Your task to perform on an android device: Go to CNN.com Image 0: 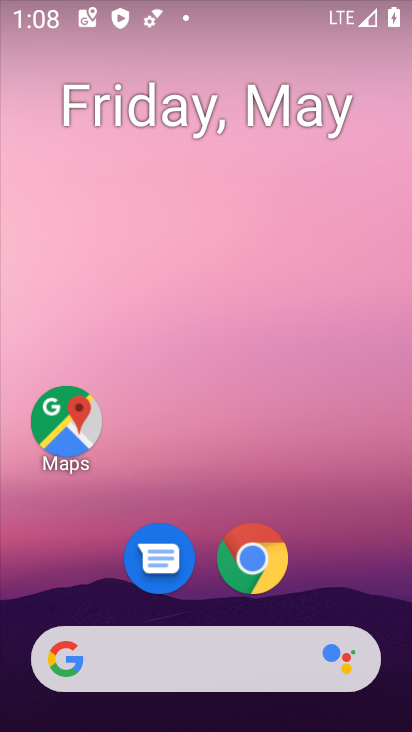
Step 0: click (267, 558)
Your task to perform on an android device: Go to CNN.com Image 1: 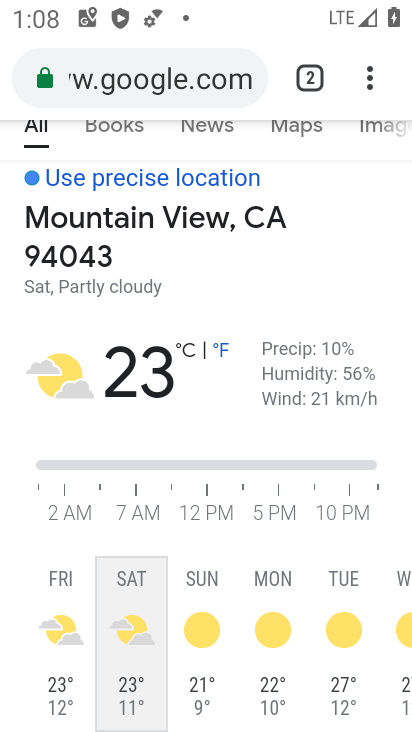
Step 1: click (184, 91)
Your task to perform on an android device: Go to CNN.com Image 2: 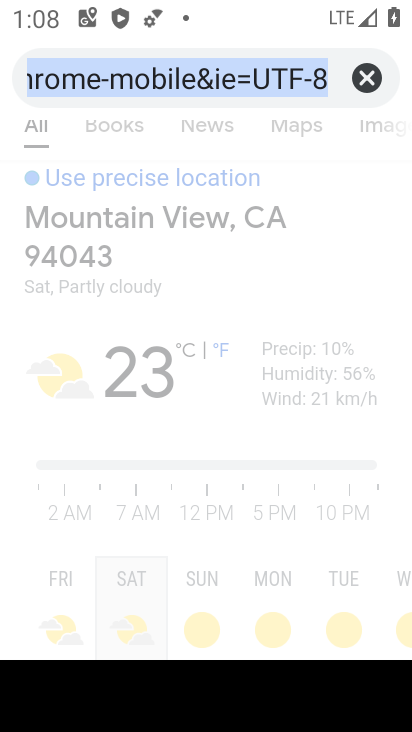
Step 2: type "cnn.com"
Your task to perform on an android device: Go to CNN.com Image 3: 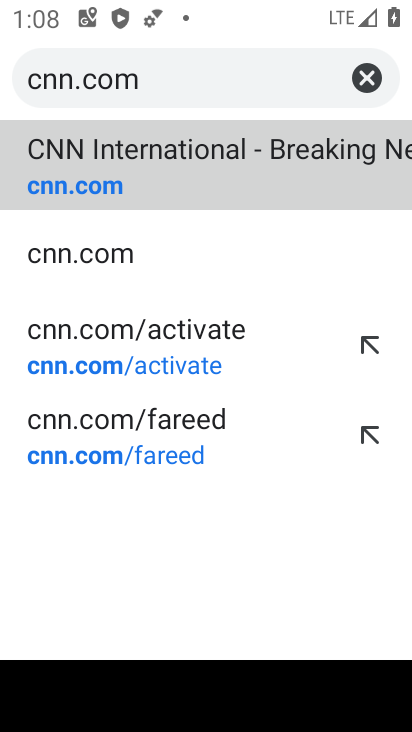
Step 3: click (54, 186)
Your task to perform on an android device: Go to CNN.com Image 4: 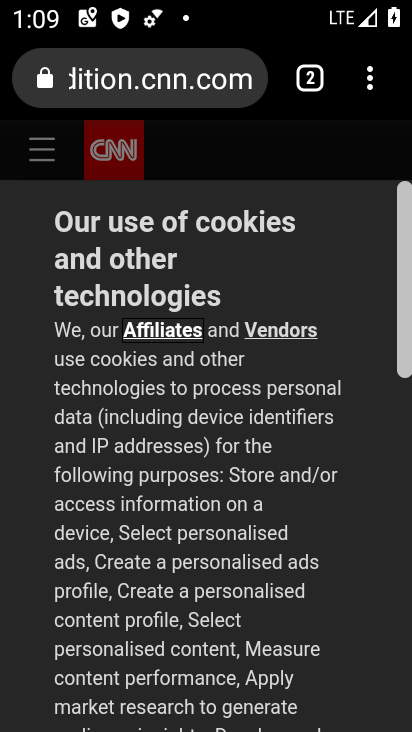
Step 4: task complete